Your task to perform on an android device: Go to battery settings Image 0: 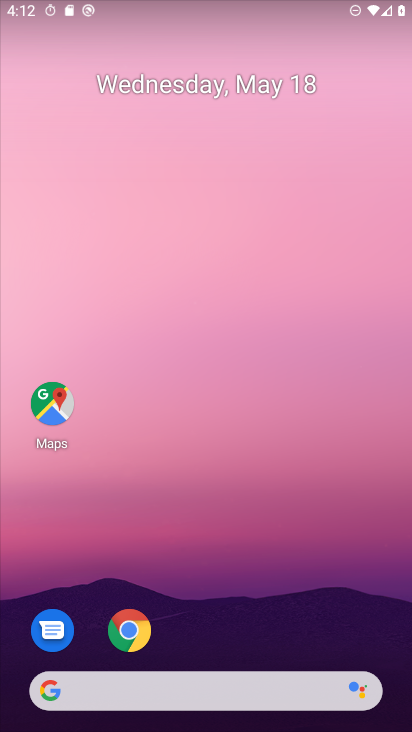
Step 0: press home button
Your task to perform on an android device: Go to battery settings Image 1: 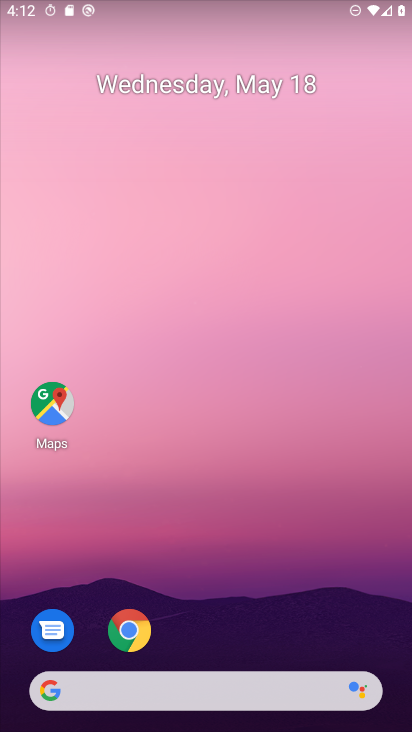
Step 1: drag from (211, 652) to (229, 51)
Your task to perform on an android device: Go to battery settings Image 2: 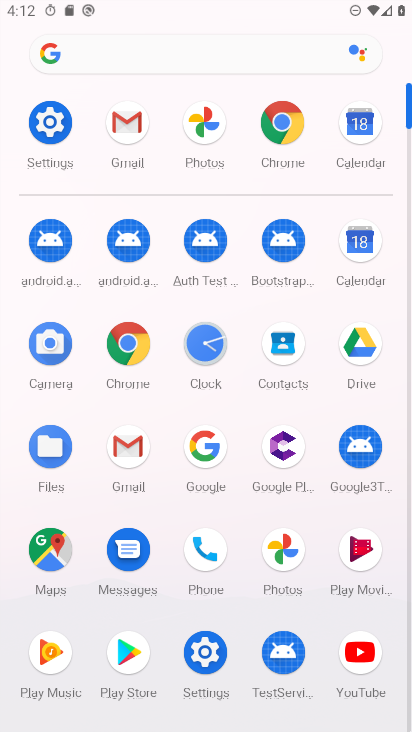
Step 2: click (52, 96)
Your task to perform on an android device: Go to battery settings Image 3: 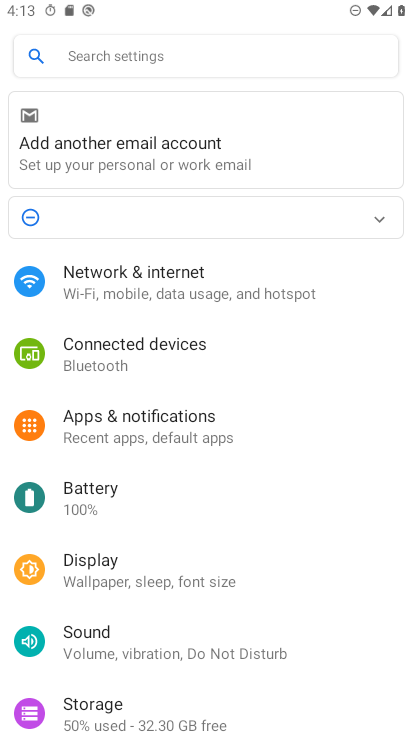
Step 3: click (130, 501)
Your task to perform on an android device: Go to battery settings Image 4: 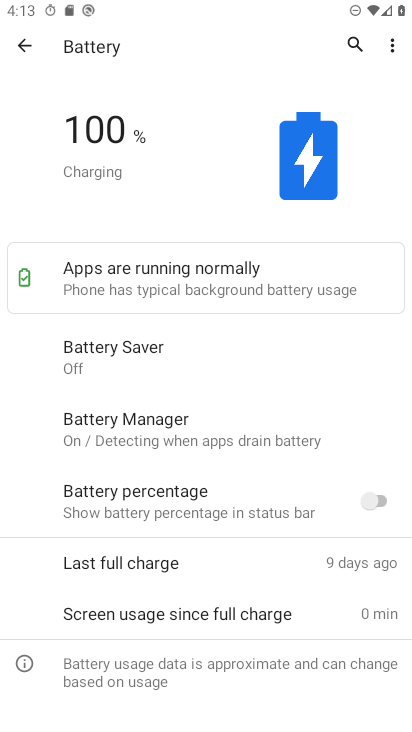
Step 4: task complete